Your task to perform on an android device: check out phone information Image 0: 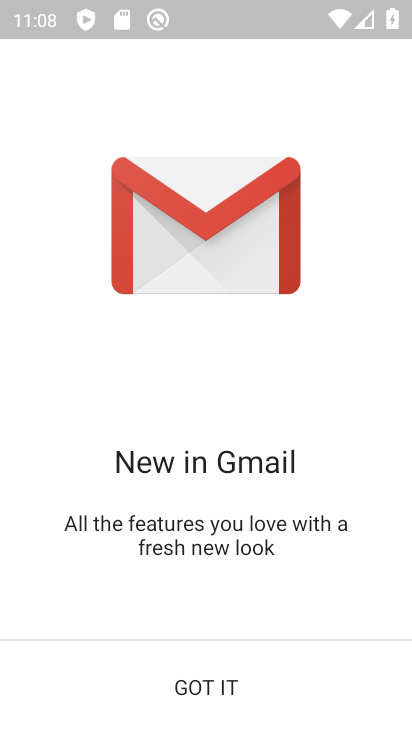
Step 0: press home button
Your task to perform on an android device: check out phone information Image 1: 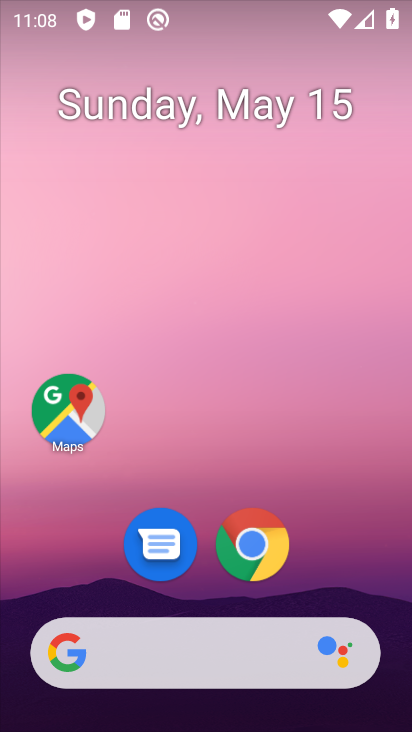
Step 1: drag from (338, 595) to (260, 115)
Your task to perform on an android device: check out phone information Image 2: 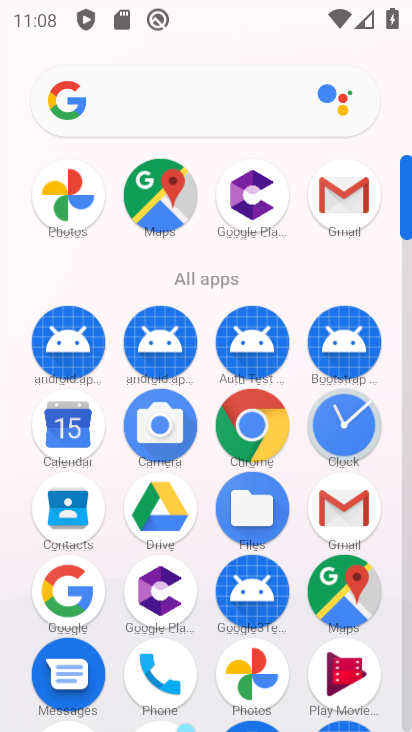
Step 2: click (406, 702)
Your task to perform on an android device: check out phone information Image 3: 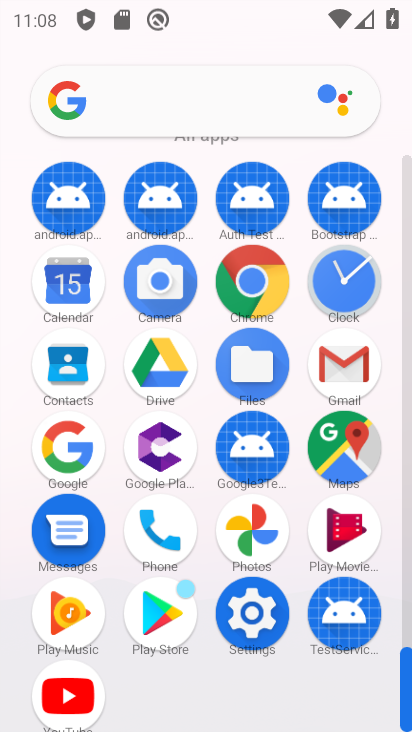
Step 3: click (259, 626)
Your task to perform on an android device: check out phone information Image 4: 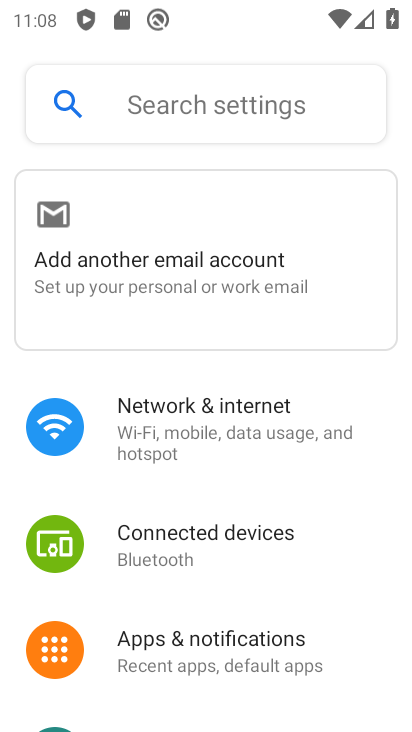
Step 4: drag from (290, 686) to (228, 147)
Your task to perform on an android device: check out phone information Image 5: 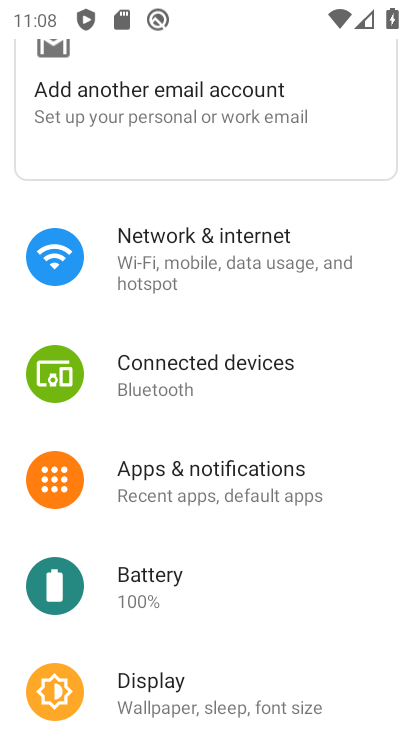
Step 5: drag from (298, 642) to (229, 60)
Your task to perform on an android device: check out phone information Image 6: 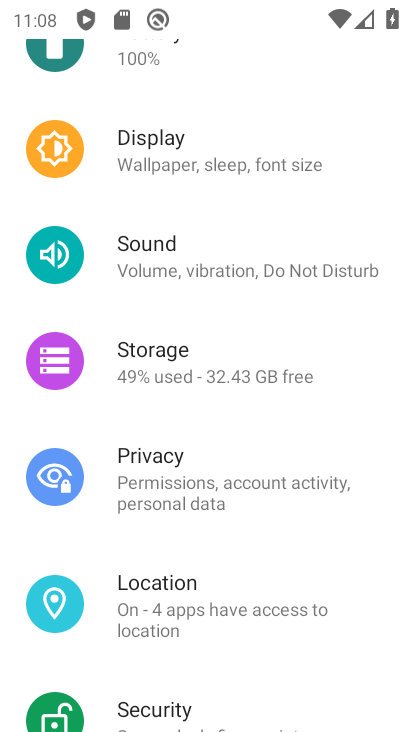
Step 6: drag from (283, 539) to (207, 26)
Your task to perform on an android device: check out phone information Image 7: 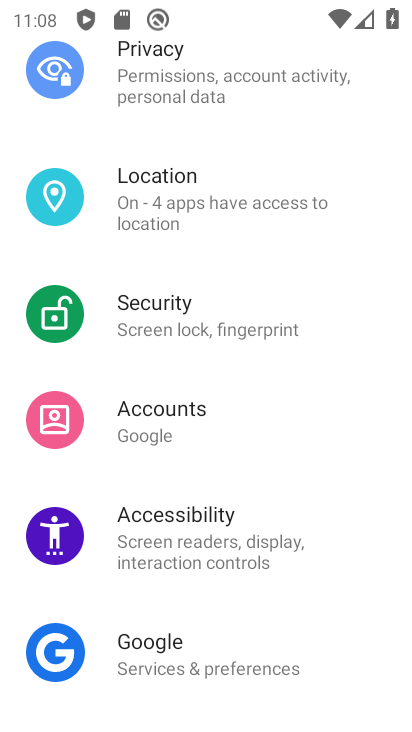
Step 7: drag from (246, 608) to (220, 85)
Your task to perform on an android device: check out phone information Image 8: 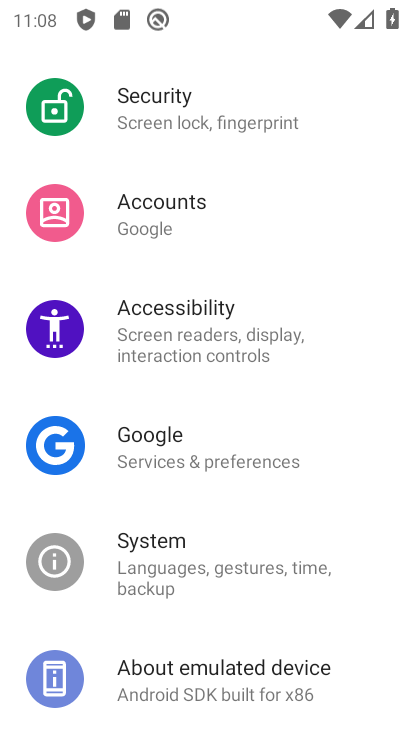
Step 8: click (288, 686)
Your task to perform on an android device: check out phone information Image 9: 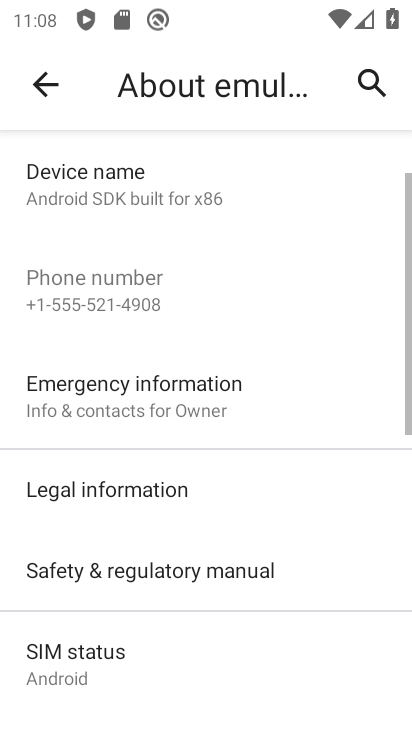
Step 9: task complete